Your task to perform on an android device: Go to display settings Image 0: 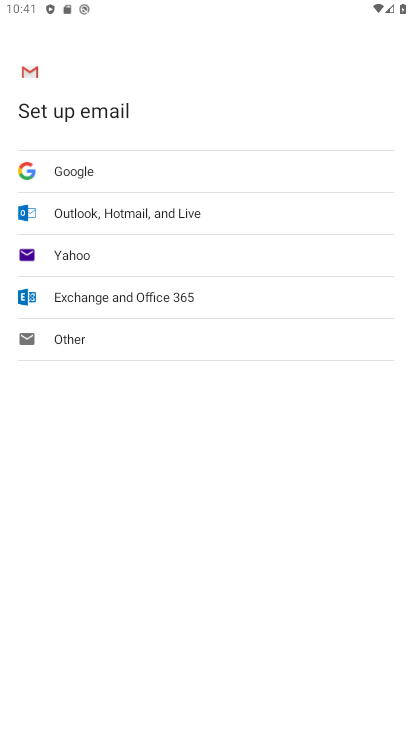
Step 0: press home button
Your task to perform on an android device: Go to display settings Image 1: 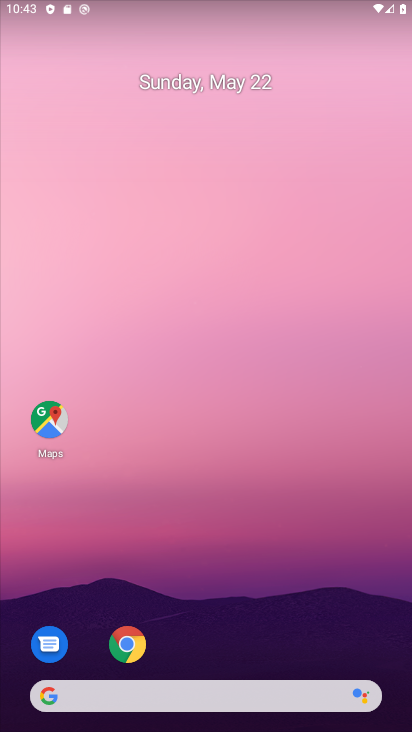
Step 1: drag from (353, 624) to (270, 5)
Your task to perform on an android device: Go to display settings Image 2: 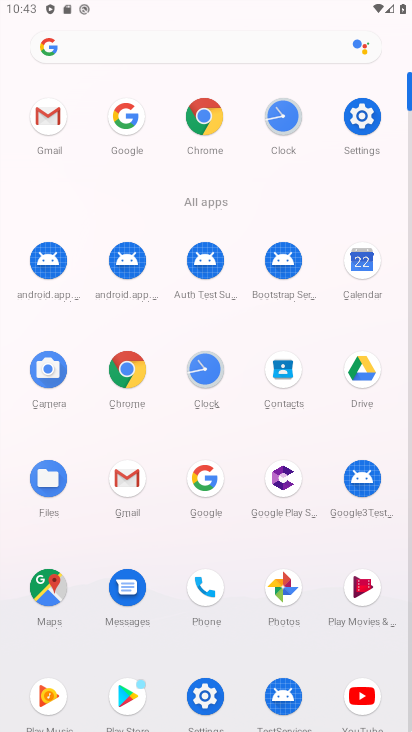
Step 2: click (372, 119)
Your task to perform on an android device: Go to display settings Image 3: 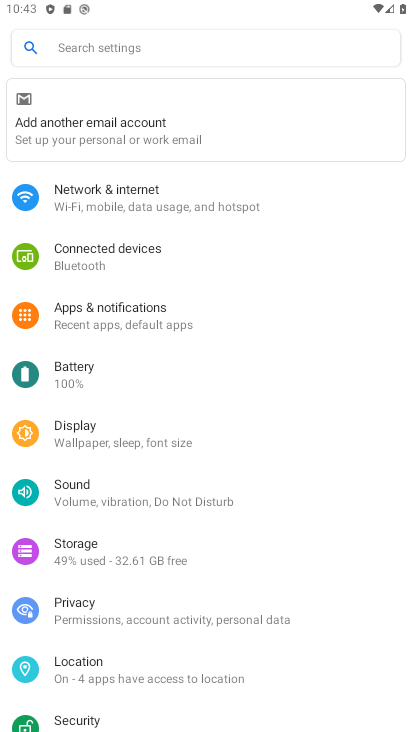
Step 3: click (169, 429)
Your task to perform on an android device: Go to display settings Image 4: 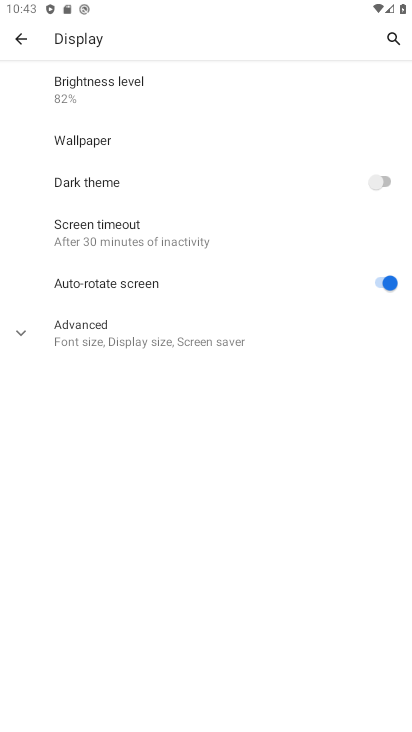
Step 4: task complete